Your task to perform on an android device: Open Google Chrome and open the bookmarks view Image 0: 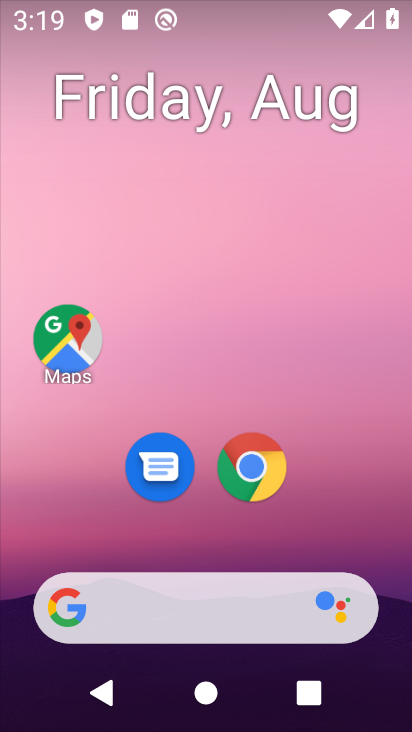
Step 0: drag from (270, 543) to (303, 64)
Your task to perform on an android device: Open Google Chrome and open the bookmarks view Image 1: 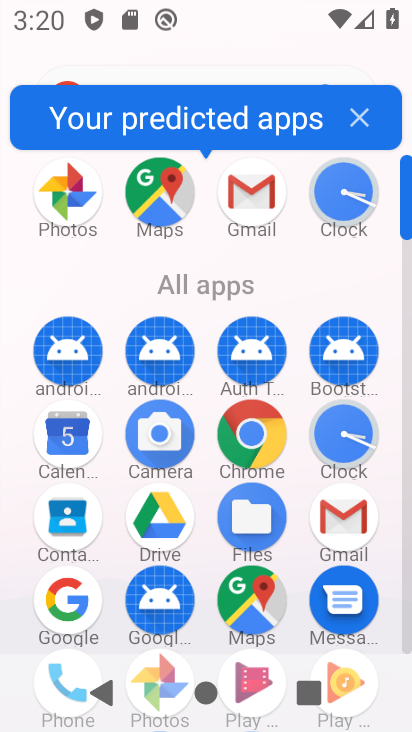
Step 1: click (245, 436)
Your task to perform on an android device: Open Google Chrome and open the bookmarks view Image 2: 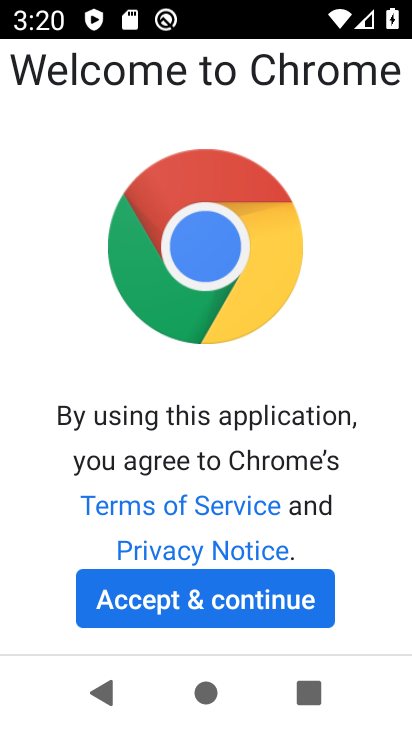
Step 2: click (240, 604)
Your task to perform on an android device: Open Google Chrome and open the bookmarks view Image 3: 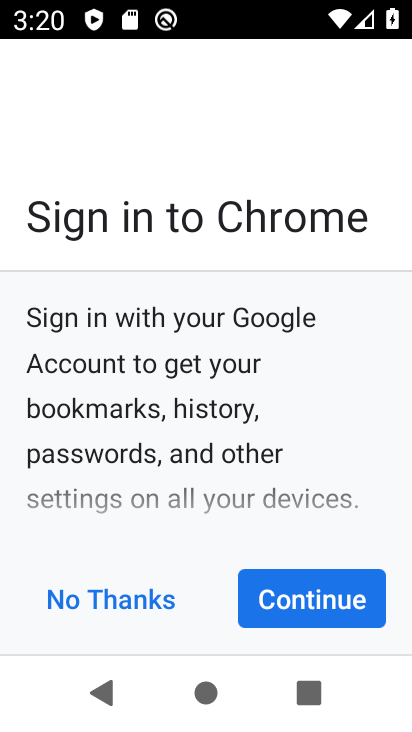
Step 3: click (354, 599)
Your task to perform on an android device: Open Google Chrome and open the bookmarks view Image 4: 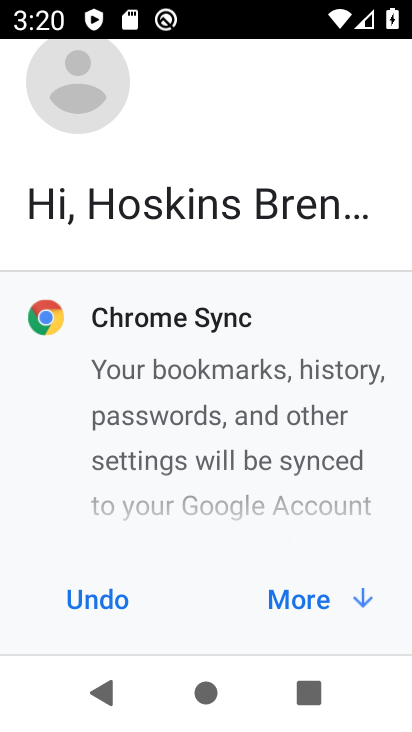
Step 4: click (325, 601)
Your task to perform on an android device: Open Google Chrome and open the bookmarks view Image 5: 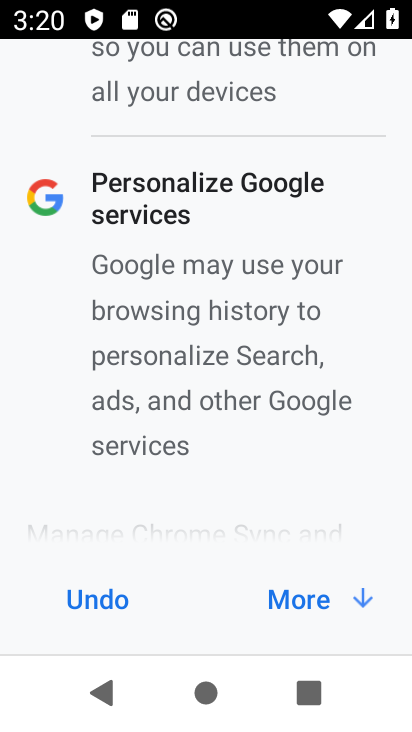
Step 5: click (325, 601)
Your task to perform on an android device: Open Google Chrome and open the bookmarks view Image 6: 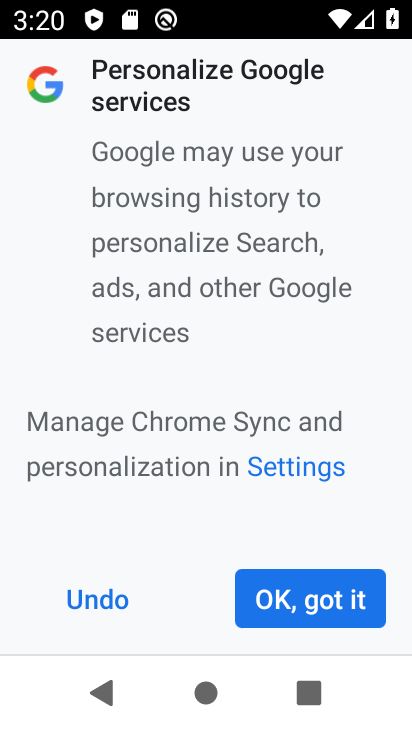
Step 6: click (325, 601)
Your task to perform on an android device: Open Google Chrome and open the bookmarks view Image 7: 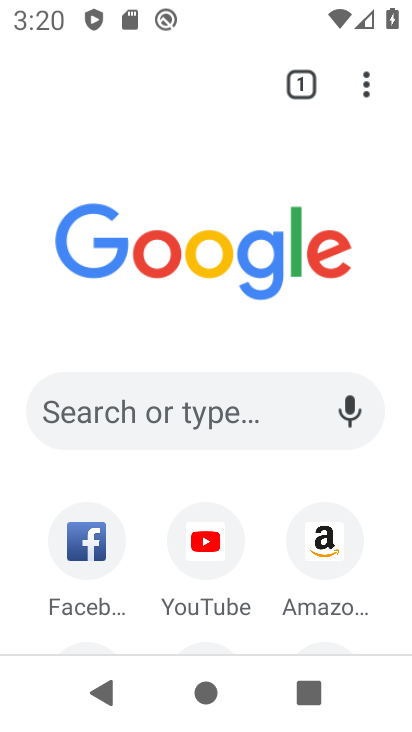
Step 7: task complete